Your task to perform on an android device: Go to Yahoo.com Image 0: 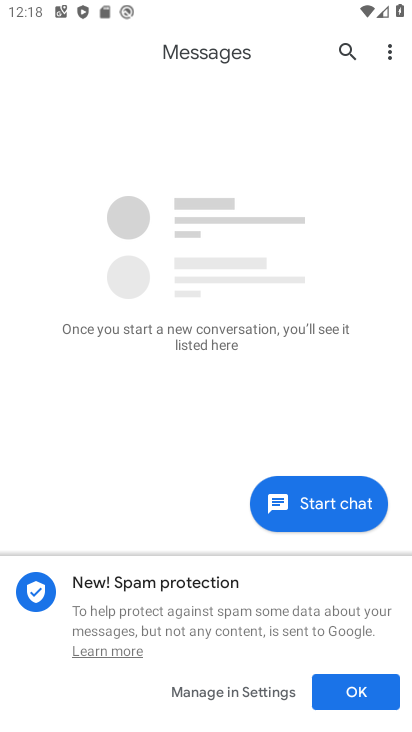
Step 0: press home button
Your task to perform on an android device: Go to Yahoo.com Image 1: 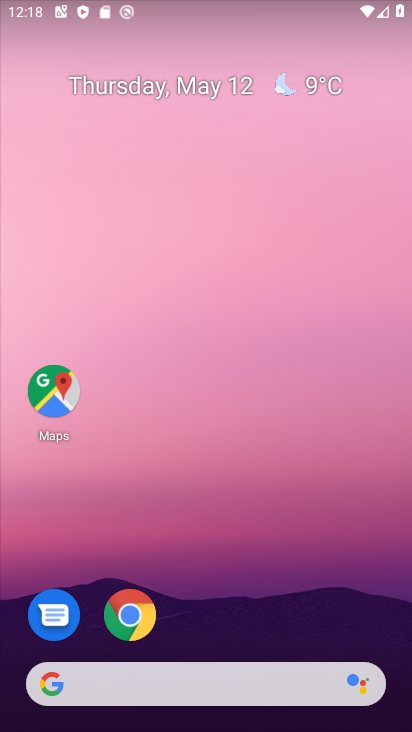
Step 1: click (130, 615)
Your task to perform on an android device: Go to Yahoo.com Image 2: 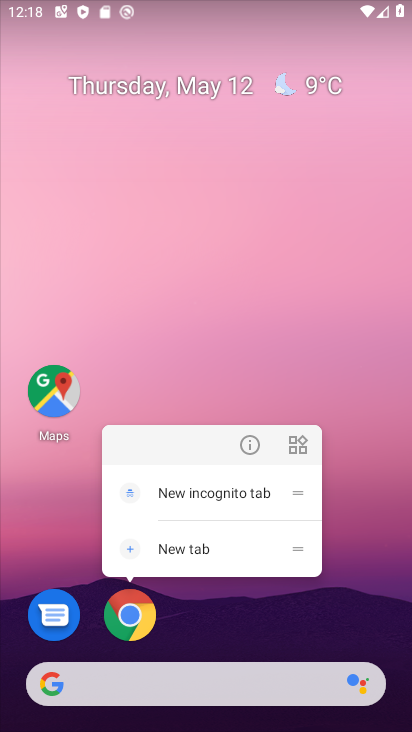
Step 2: click (131, 616)
Your task to perform on an android device: Go to Yahoo.com Image 3: 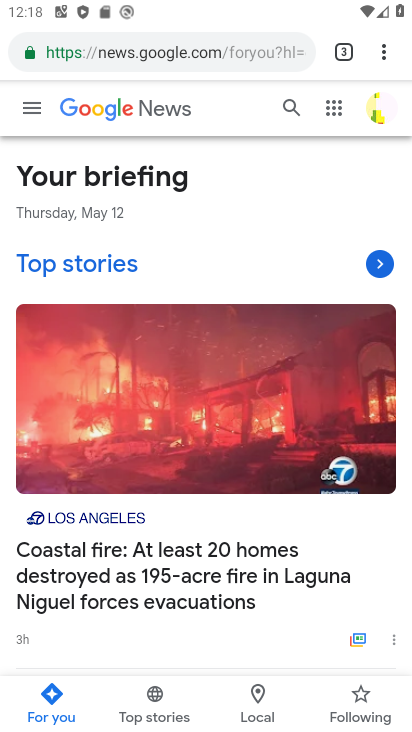
Step 3: click (264, 49)
Your task to perform on an android device: Go to Yahoo.com Image 4: 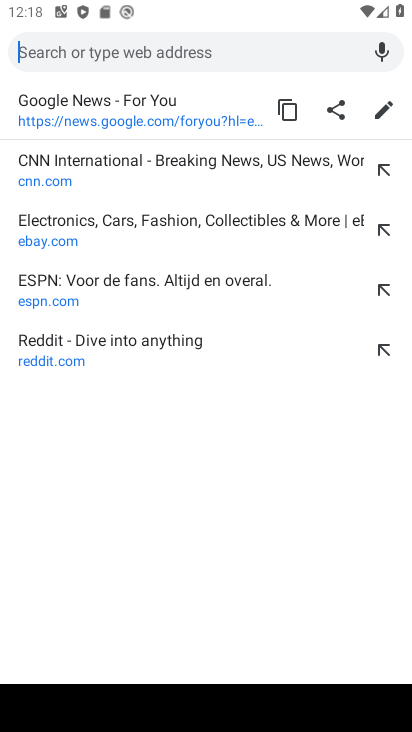
Step 4: type "yahoo.com"
Your task to perform on an android device: Go to Yahoo.com Image 5: 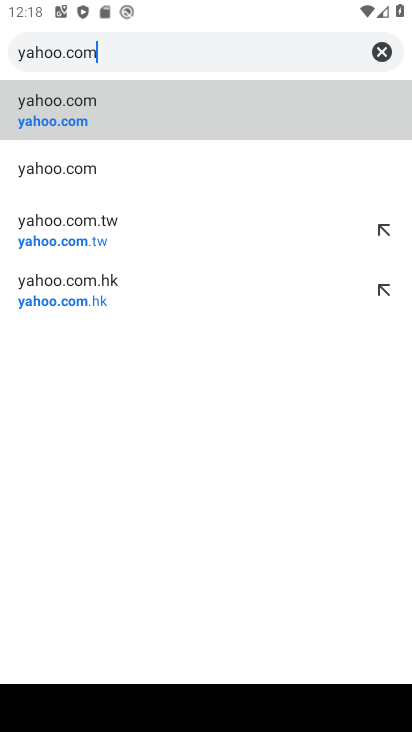
Step 5: click (67, 113)
Your task to perform on an android device: Go to Yahoo.com Image 6: 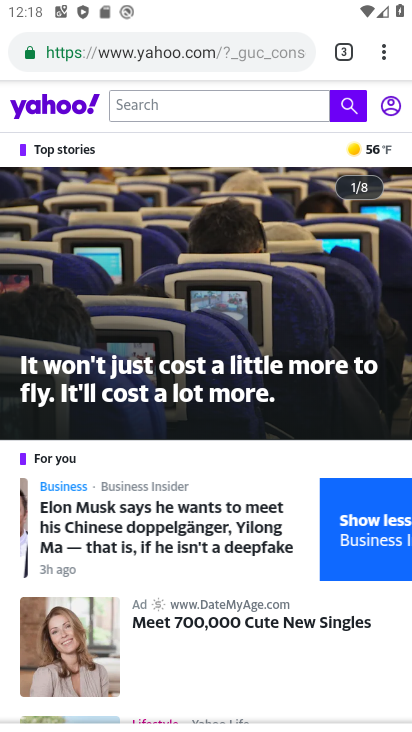
Step 6: task complete